Your task to perform on an android device: Open calendar and show me the second week of next month Image 0: 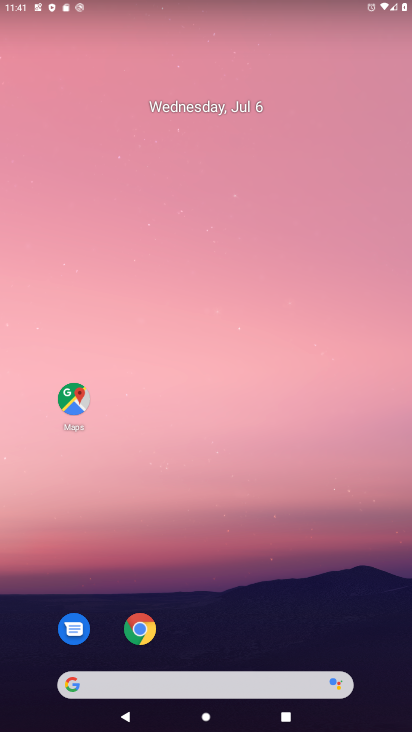
Step 0: drag from (251, 601) to (179, 196)
Your task to perform on an android device: Open calendar and show me the second week of next month Image 1: 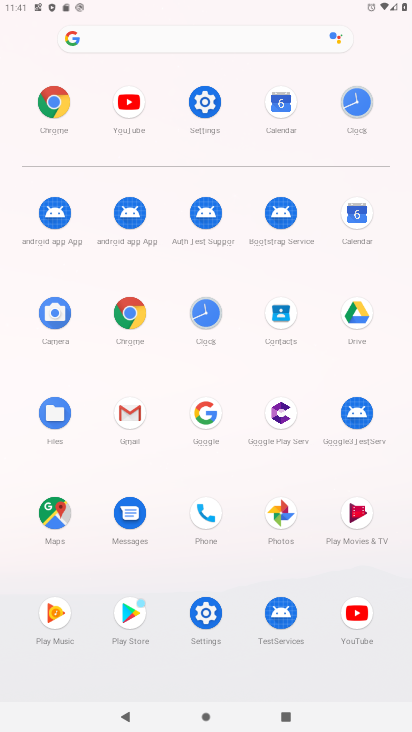
Step 1: click (282, 104)
Your task to perform on an android device: Open calendar and show me the second week of next month Image 2: 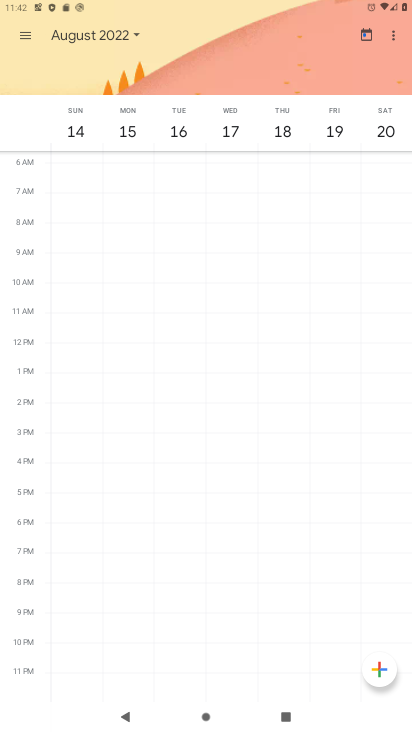
Step 2: click (370, 33)
Your task to perform on an android device: Open calendar and show me the second week of next month Image 3: 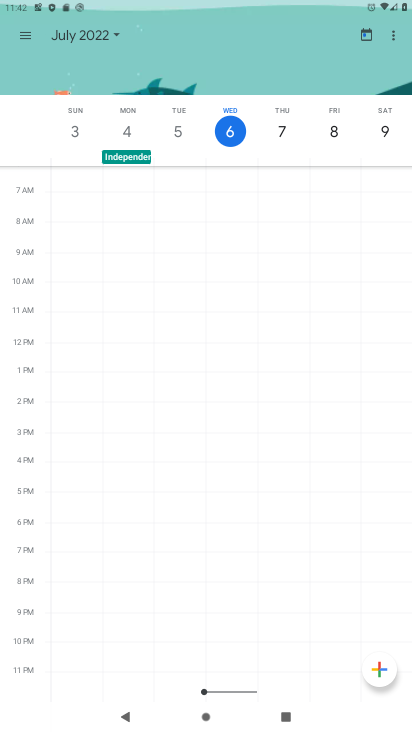
Step 3: click (117, 33)
Your task to perform on an android device: Open calendar and show me the second week of next month Image 4: 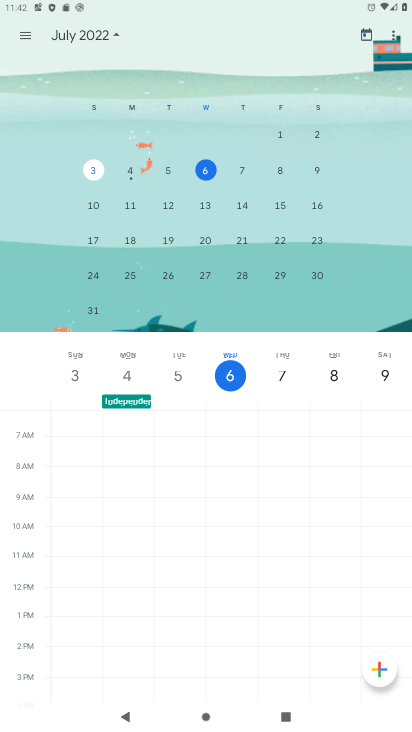
Step 4: drag from (353, 226) to (3, 253)
Your task to perform on an android device: Open calendar and show me the second week of next month Image 5: 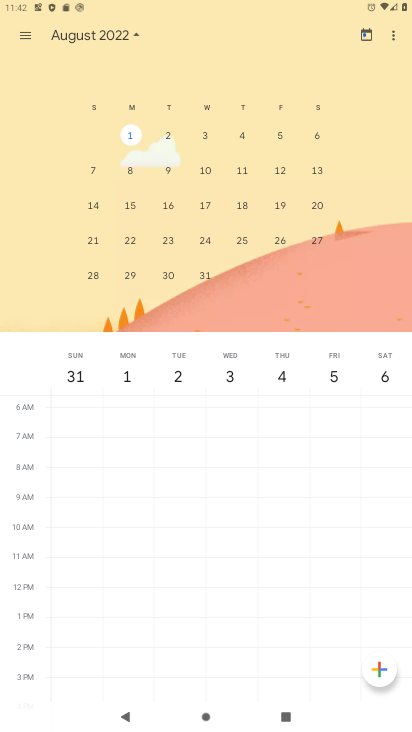
Step 5: click (130, 169)
Your task to perform on an android device: Open calendar and show me the second week of next month Image 6: 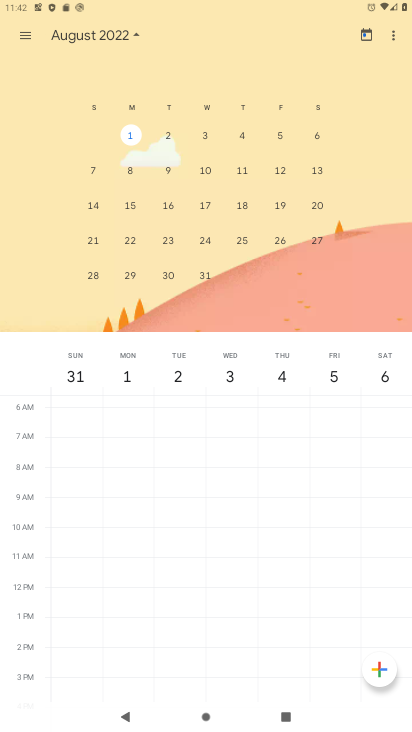
Step 6: click (132, 170)
Your task to perform on an android device: Open calendar and show me the second week of next month Image 7: 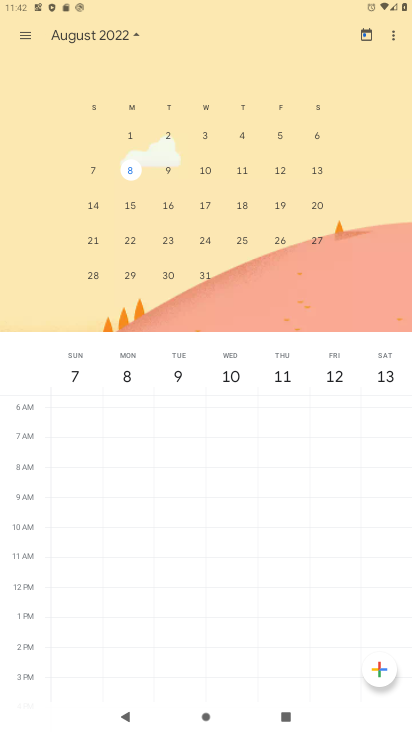
Step 7: click (19, 27)
Your task to perform on an android device: Open calendar and show me the second week of next month Image 8: 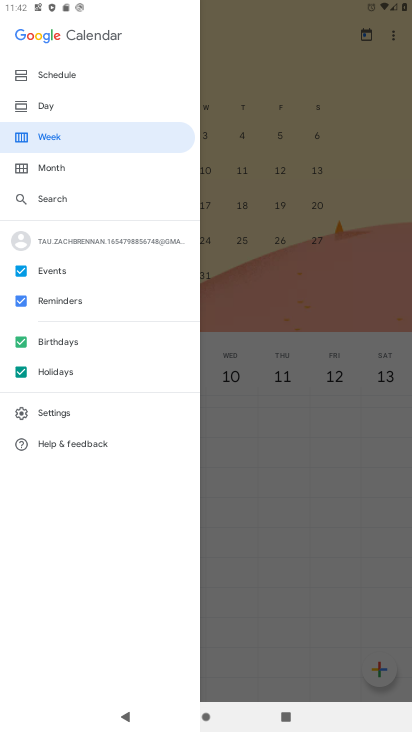
Step 8: click (50, 132)
Your task to perform on an android device: Open calendar and show me the second week of next month Image 9: 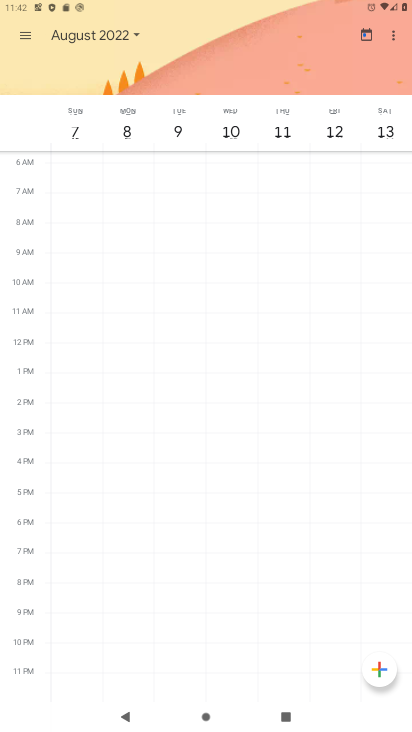
Step 9: task complete